Your task to perform on an android device: turn off translation in the chrome app Image 0: 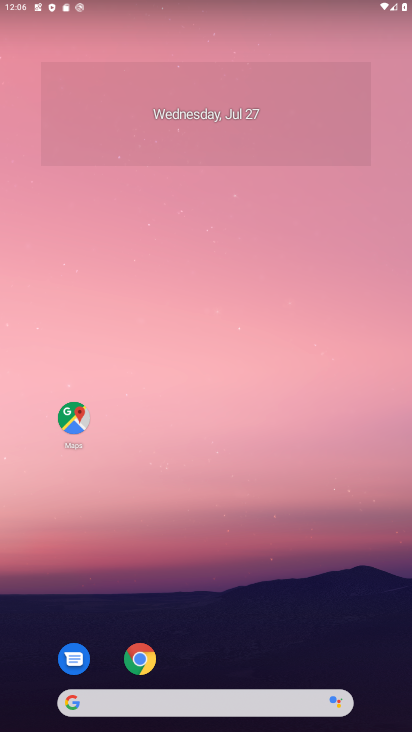
Step 0: click (130, 649)
Your task to perform on an android device: turn off translation in the chrome app Image 1: 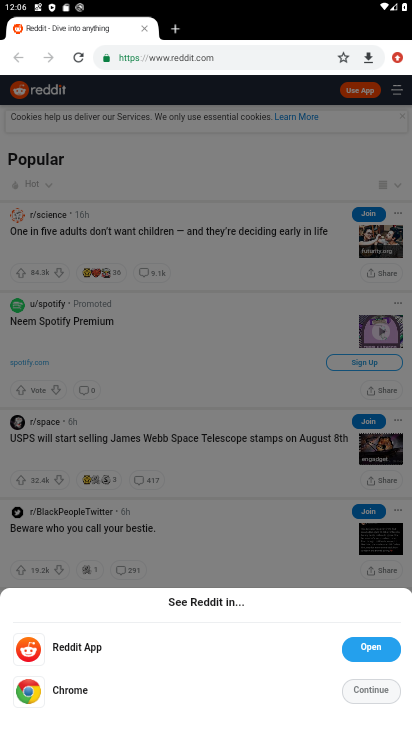
Step 1: click (398, 59)
Your task to perform on an android device: turn off translation in the chrome app Image 2: 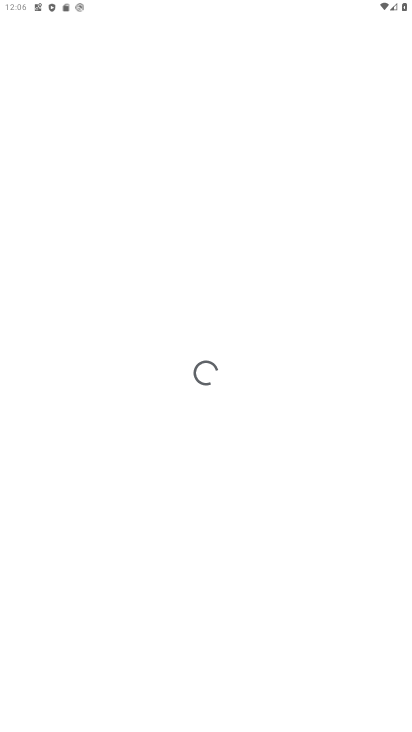
Step 2: task complete